Your task to perform on an android device: Open the phone app and click the voicemail tab. Image 0: 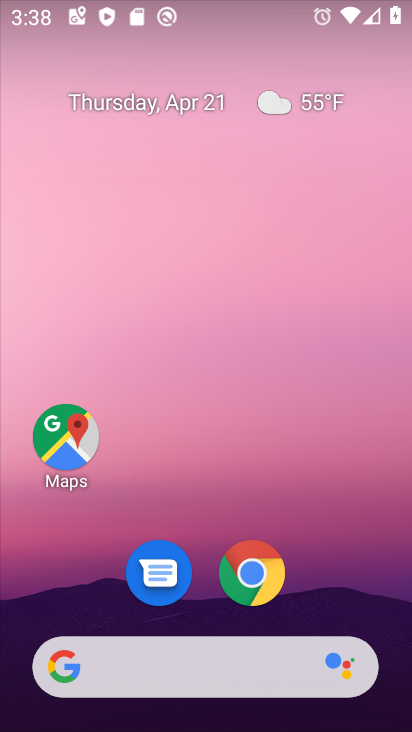
Step 0: drag from (355, 605) to (212, 79)
Your task to perform on an android device: Open the phone app and click the voicemail tab. Image 1: 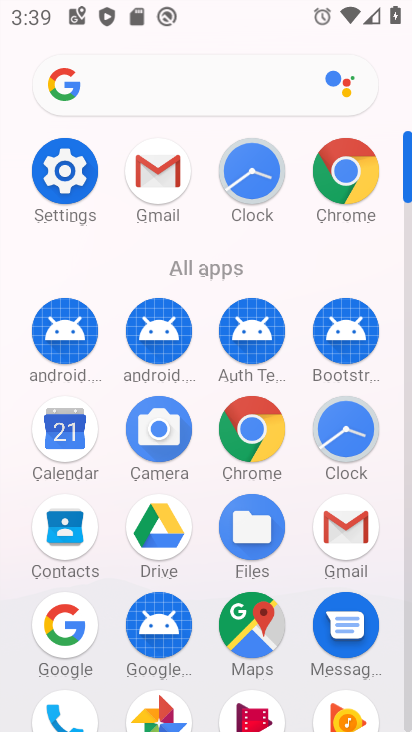
Step 1: click (409, 684)
Your task to perform on an android device: Open the phone app and click the voicemail tab. Image 2: 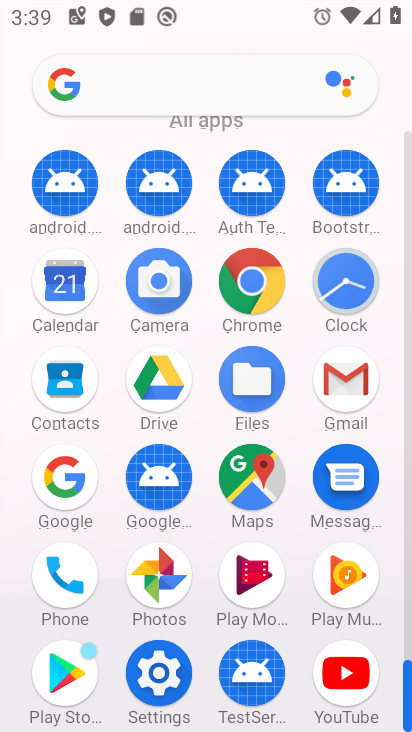
Step 2: click (63, 576)
Your task to perform on an android device: Open the phone app and click the voicemail tab. Image 3: 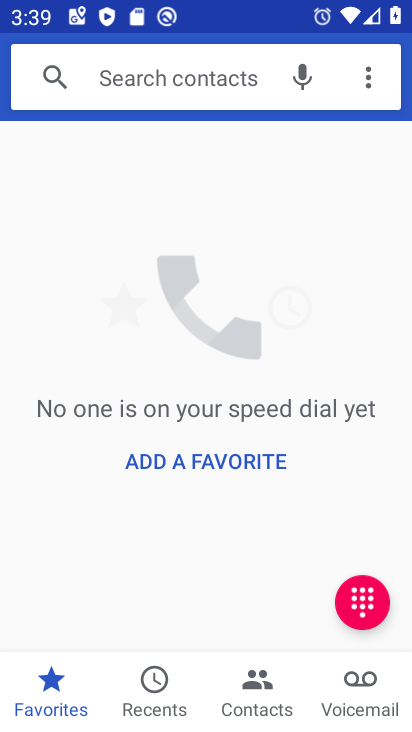
Step 3: click (354, 692)
Your task to perform on an android device: Open the phone app and click the voicemail tab. Image 4: 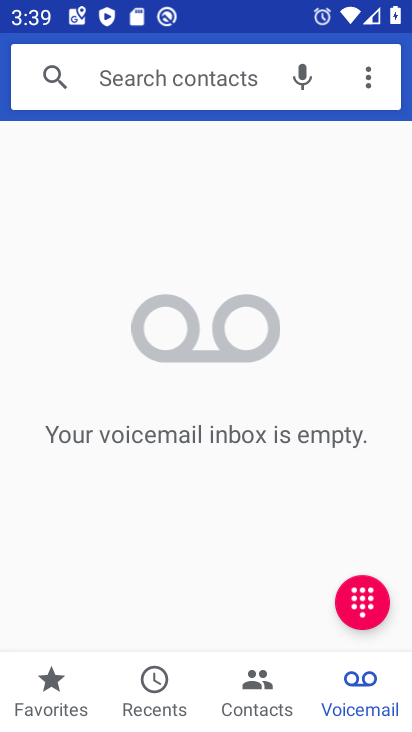
Step 4: task complete